Your task to perform on an android device: change the upload size in google photos Image 0: 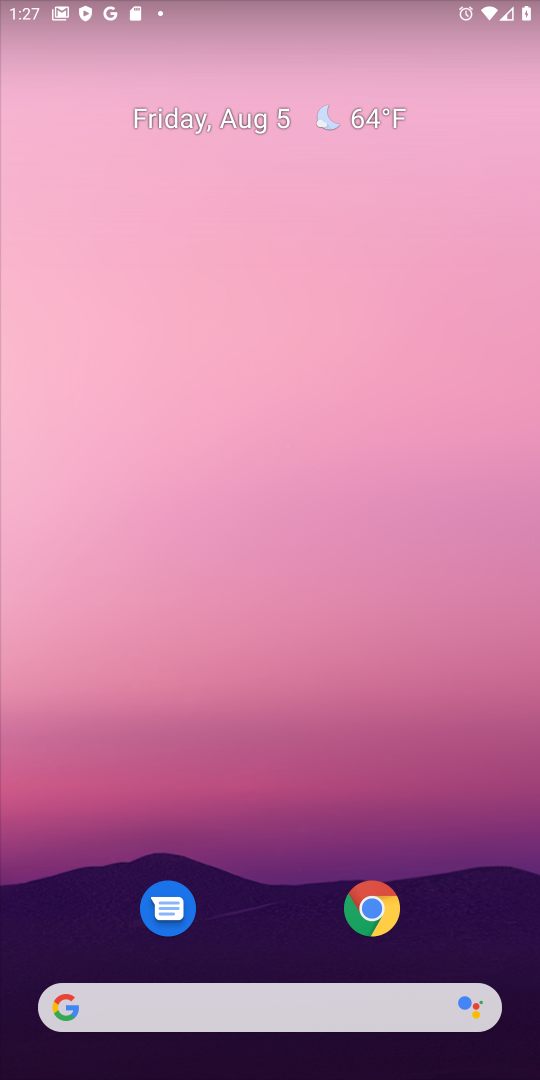
Step 0: press home button
Your task to perform on an android device: change the upload size in google photos Image 1: 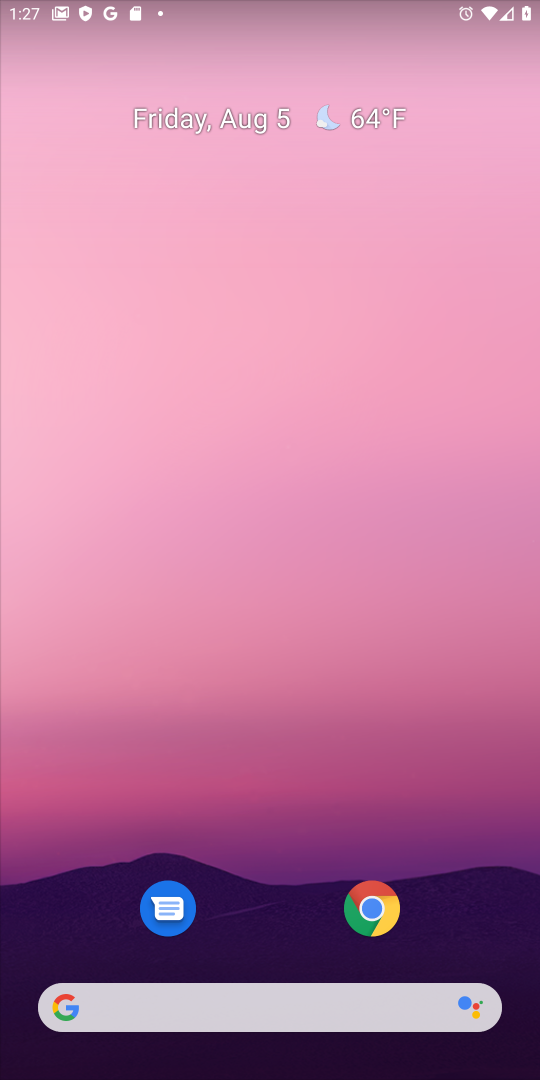
Step 1: drag from (247, 862) to (191, 120)
Your task to perform on an android device: change the upload size in google photos Image 2: 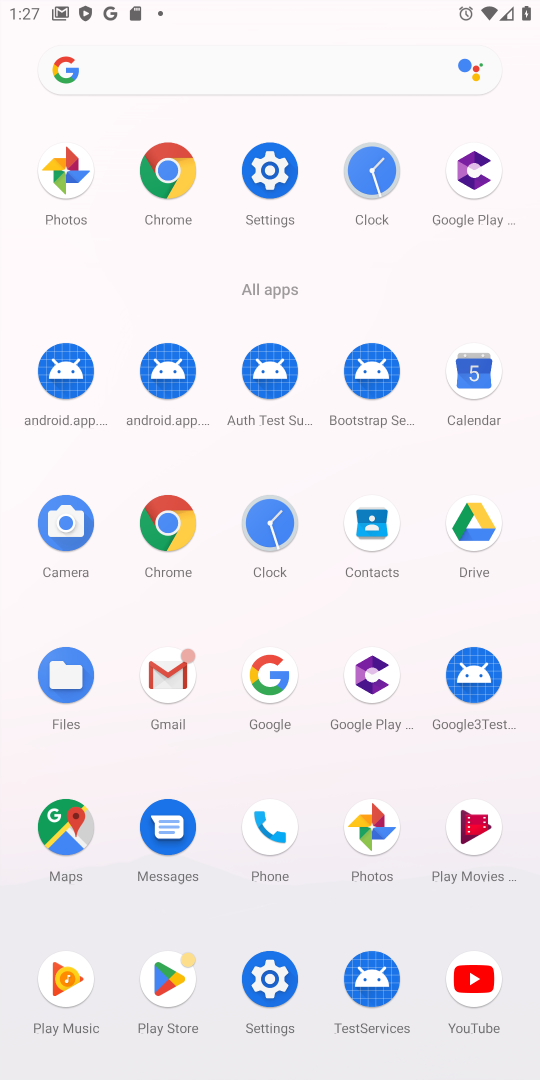
Step 2: click (382, 815)
Your task to perform on an android device: change the upload size in google photos Image 3: 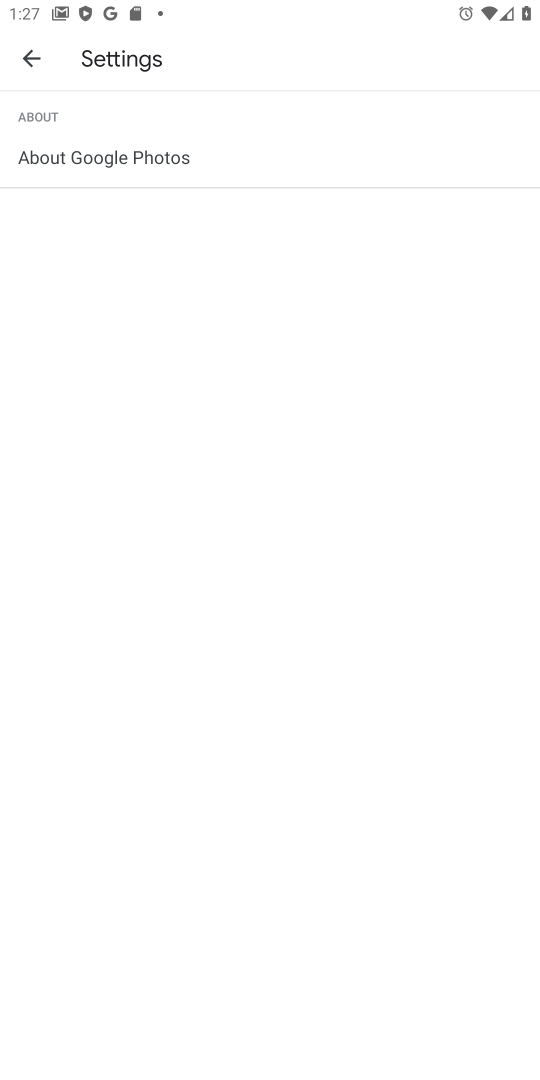
Step 3: click (36, 60)
Your task to perform on an android device: change the upload size in google photos Image 4: 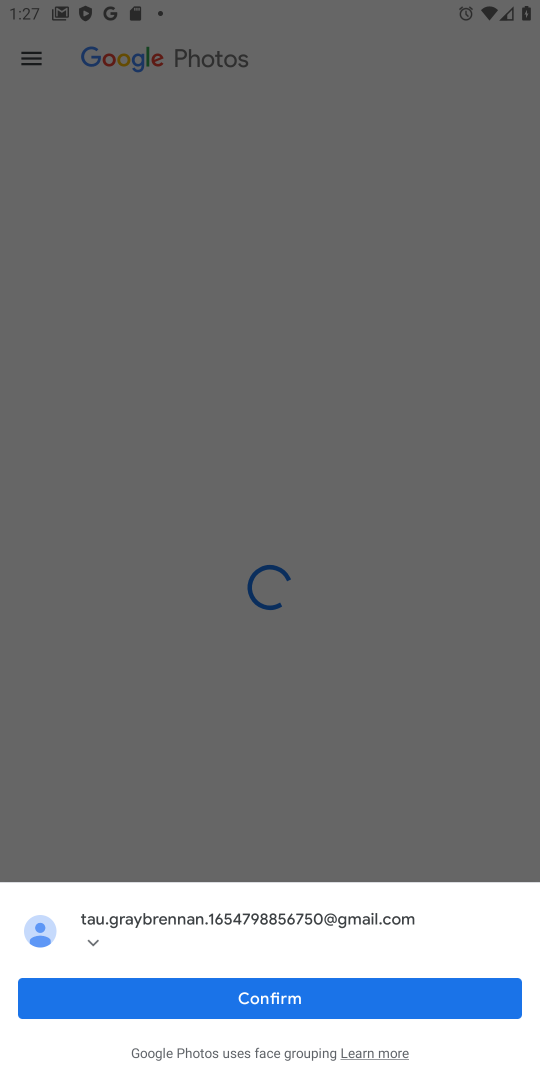
Step 4: click (36, 56)
Your task to perform on an android device: change the upload size in google photos Image 5: 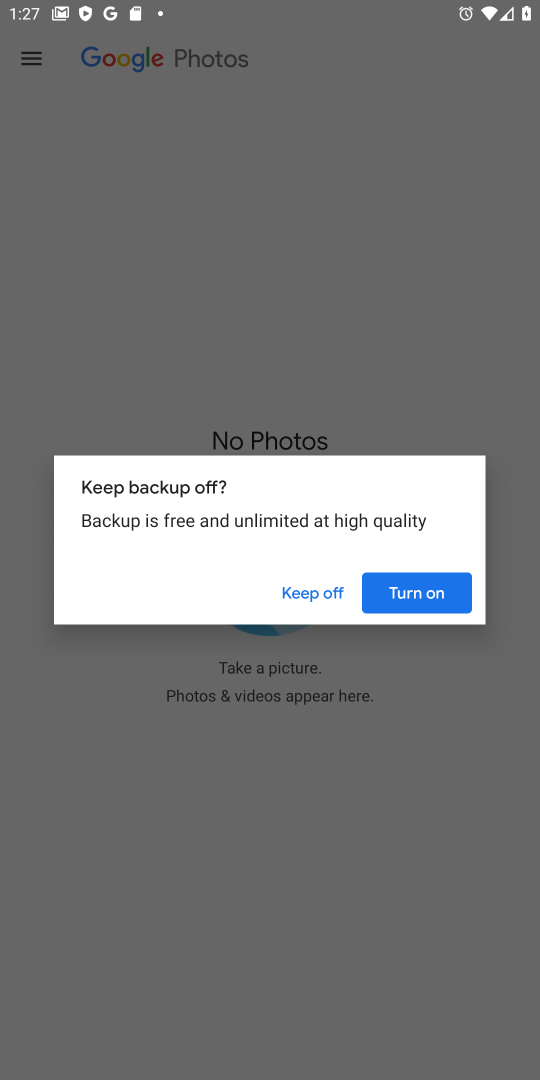
Step 5: click (313, 595)
Your task to perform on an android device: change the upload size in google photos Image 6: 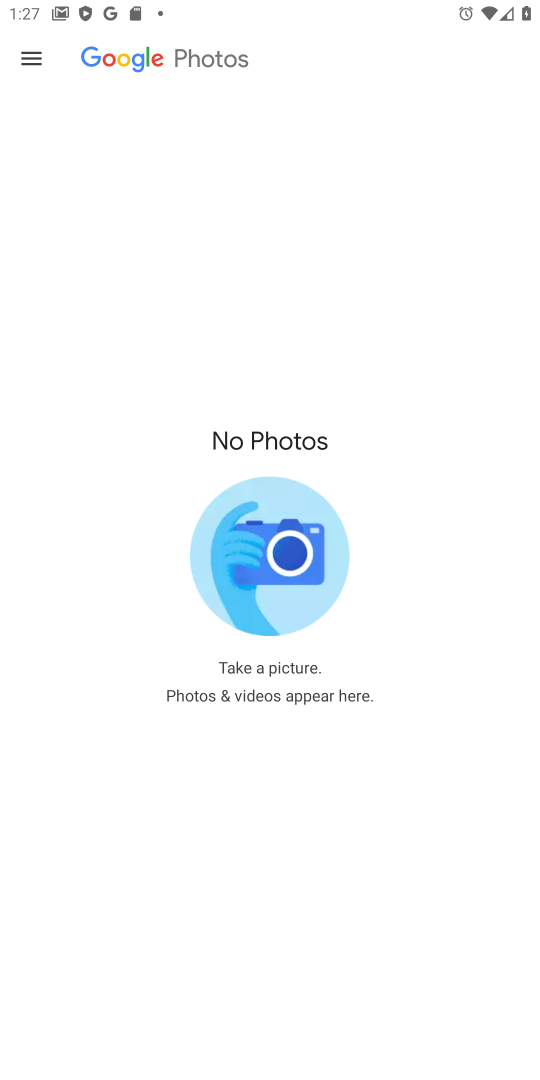
Step 6: click (27, 50)
Your task to perform on an android device: change the upload size in google photos Image 7: 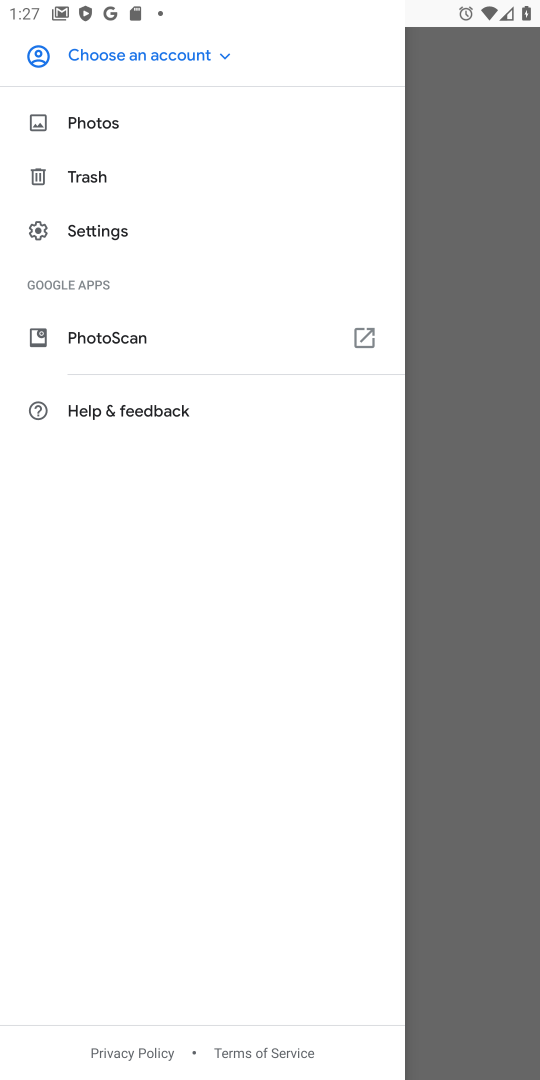
Step 7: click (101, 235)
Your task to perform on an android device: change the upload size in google photos Image 8: 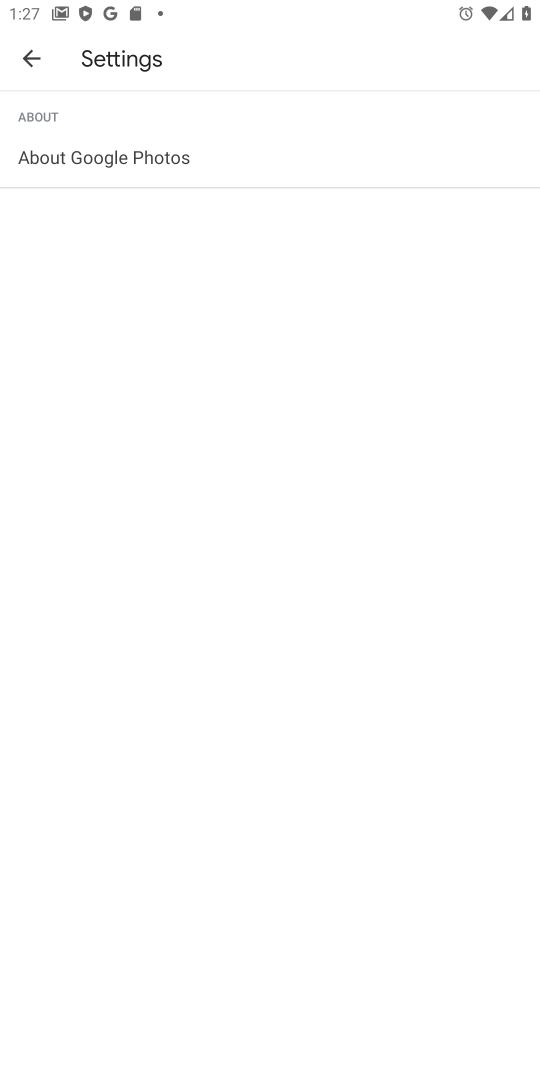
Step 8: click (71, 165)
Your task to perform on an android device: change the upload size in google photos Image 9: 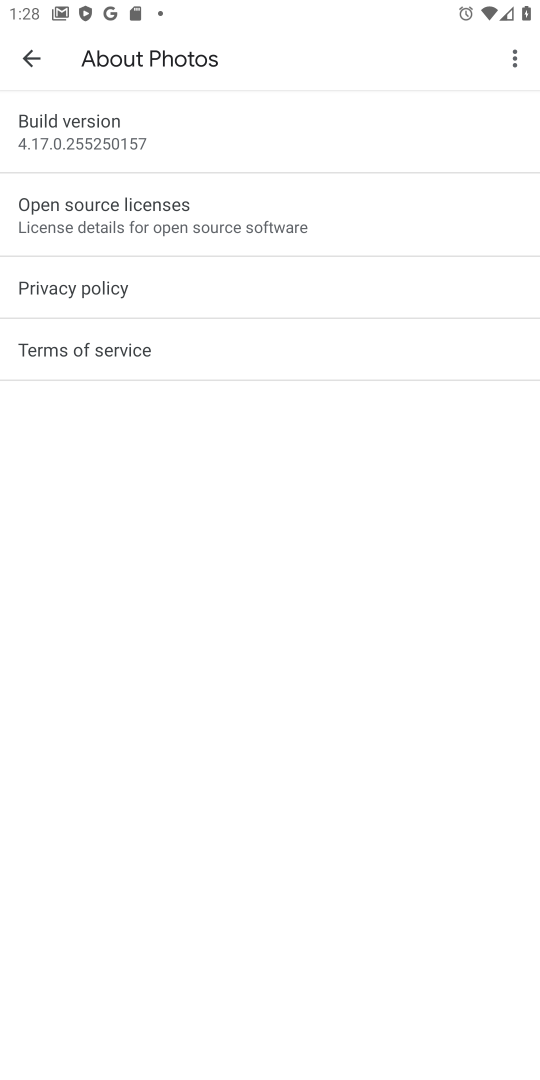
Step 9: click (36, 62)
Your task to perform on an android device: change the upload size in google photos Image 10: 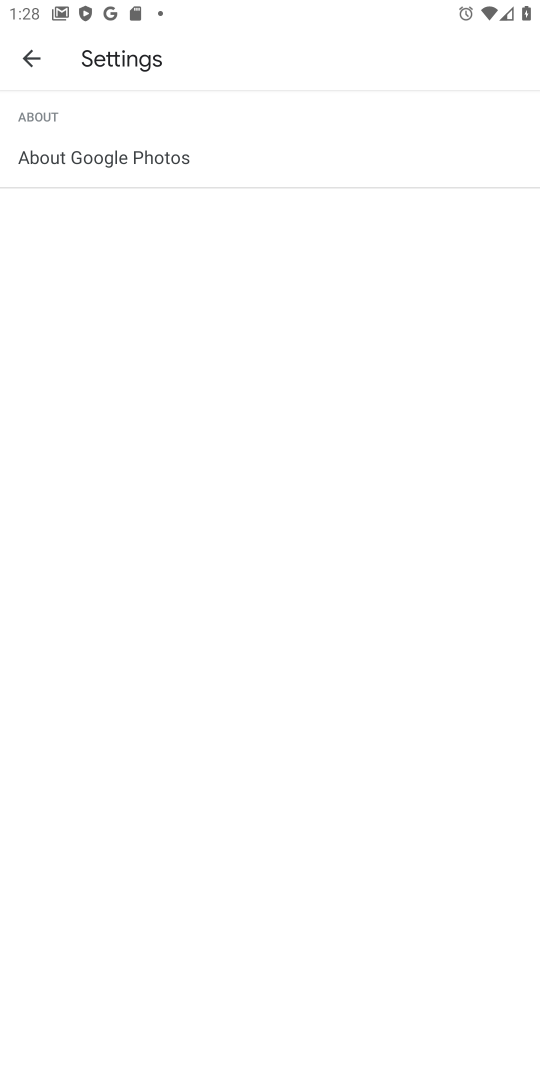
Step 10: click (36, 62)
Your task to perform on an android device: change the upload size in google photos Image 11: 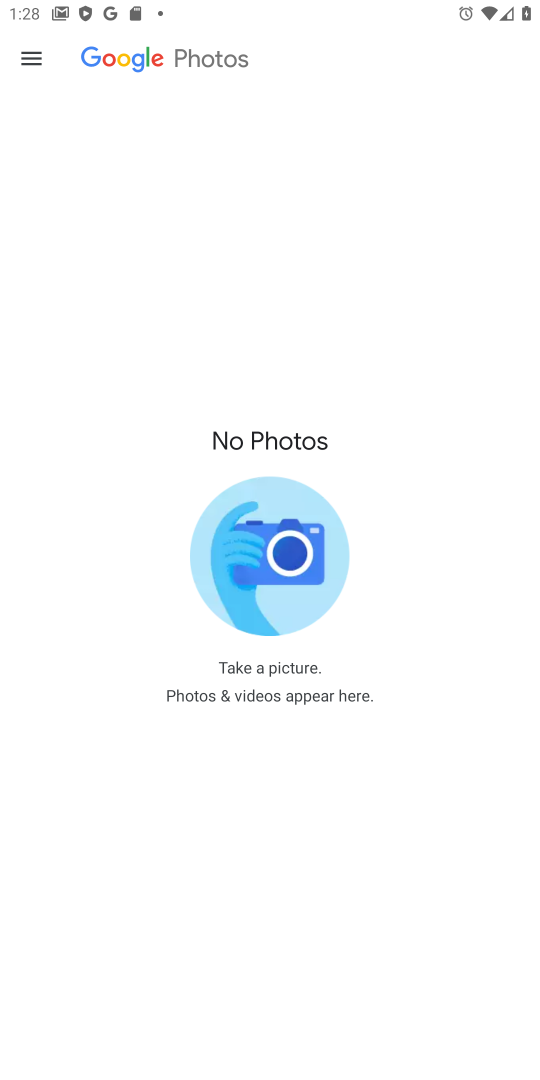
Step 11: click (36, 62)
Your task to perform on an android device: change the upload size in google photos Image 12: 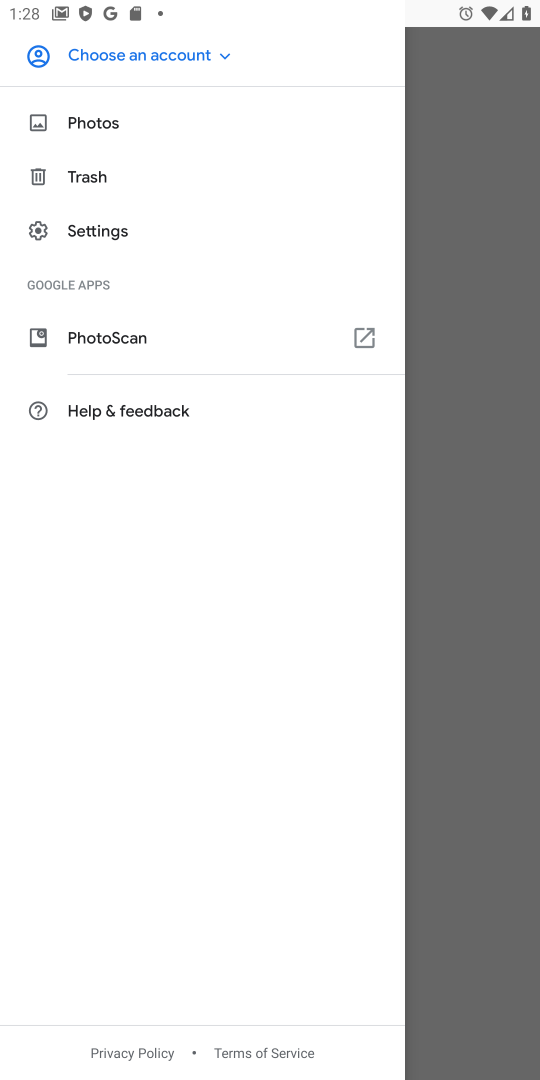
Step 12: click (40, 252)
Your task to perform on an android device: change the upload size in google photos Image 13: 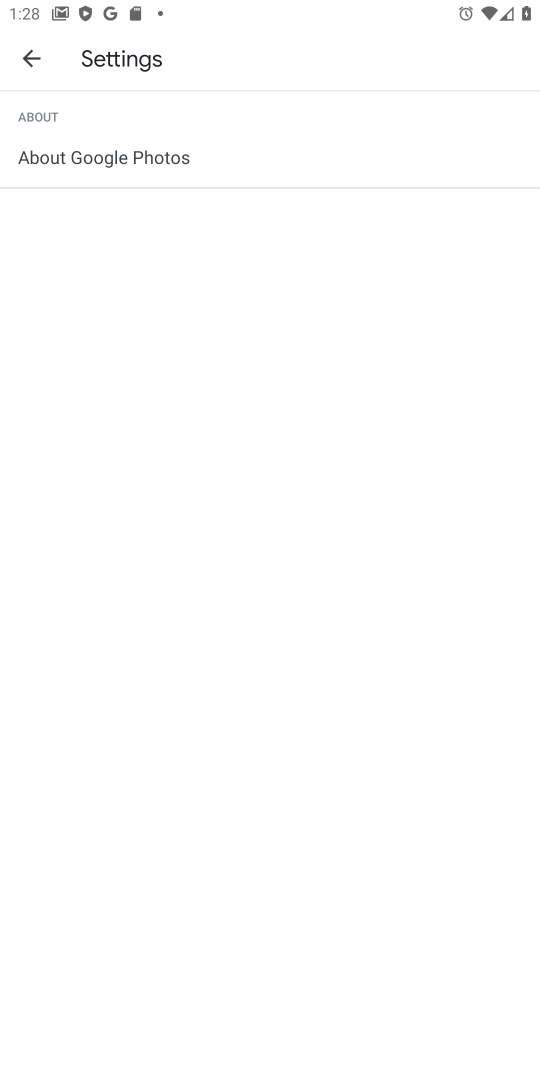
Step 13: click (21, 58)
Your task to perform on an android device: change the upload size in google photos Image 14: 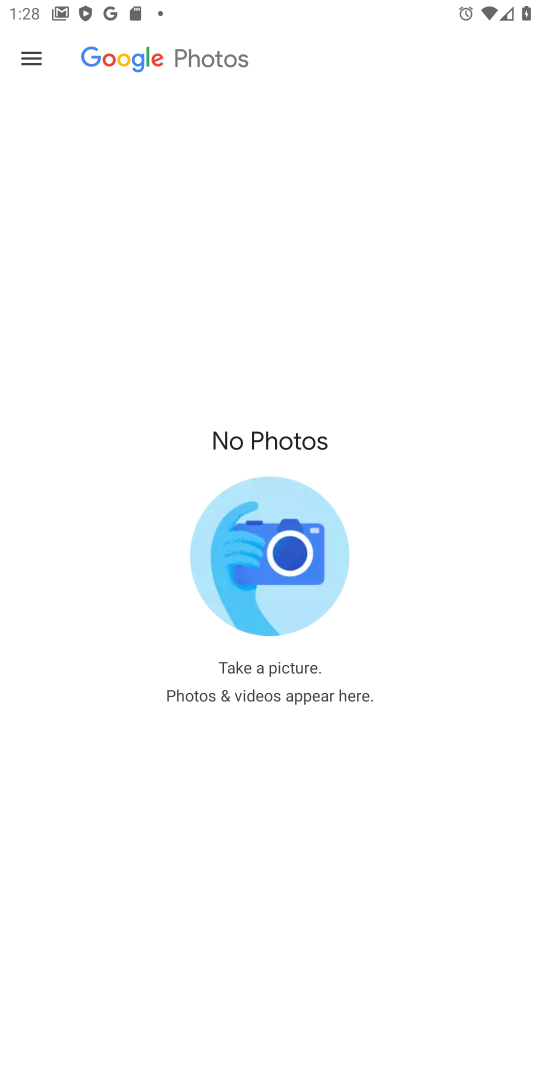
Step 14: click (21, 58)
Your task to perform on an android device: change the upload size in google photos Image 15: 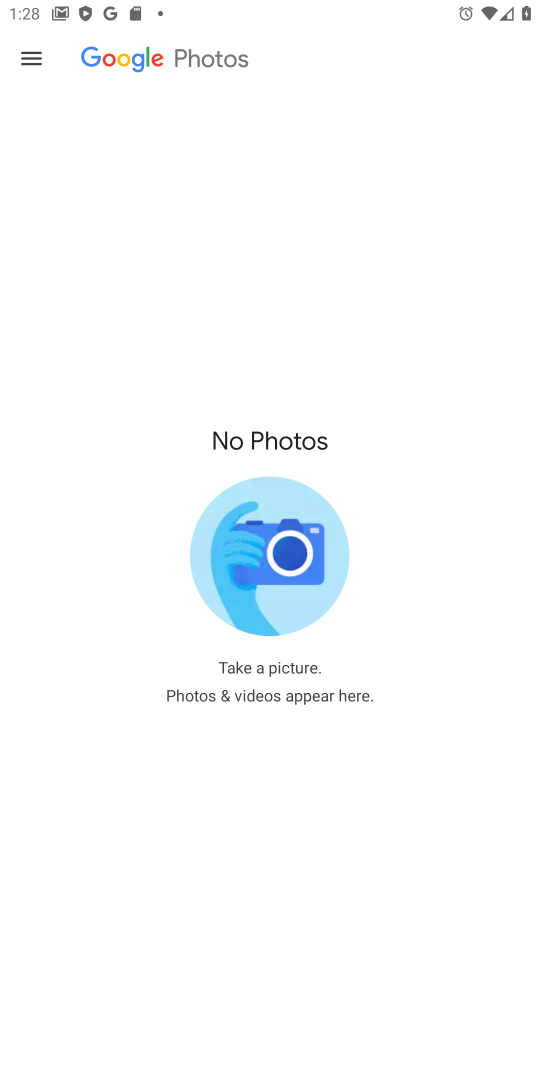
Step 15: click (41, 60)
Your task to perform on an android device: change the upload size in google photos Image 16: 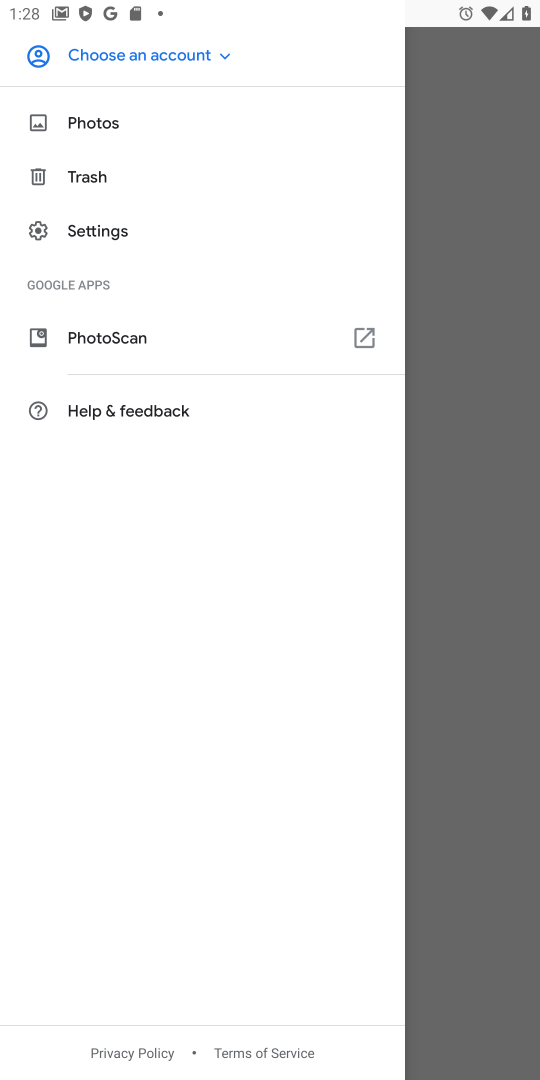
Step 16: click (98, 121)
Your task to perform on an android device: change the upload size in google photos Image 17: 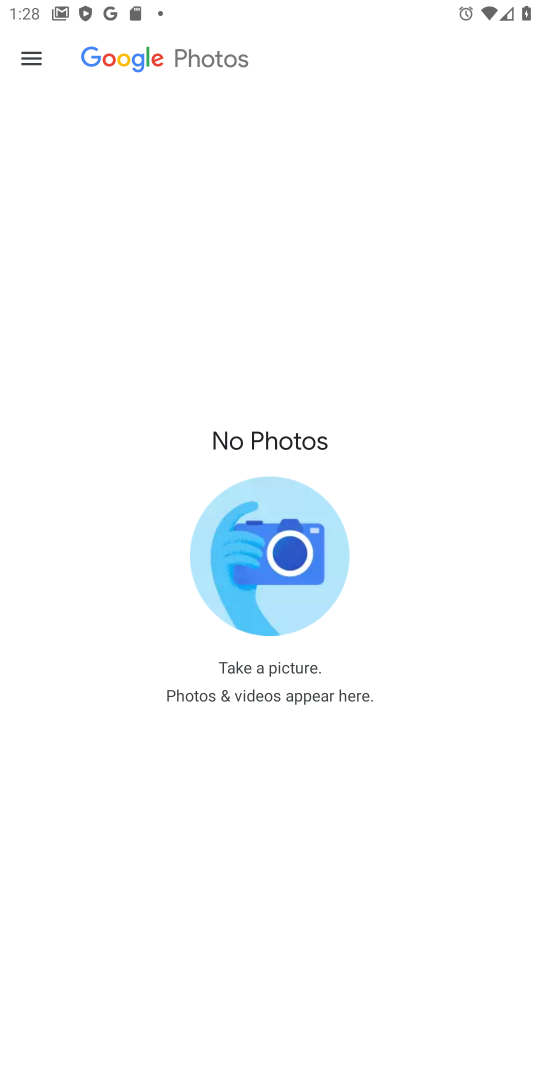
Step 17: click (34, 61)
Your task to perform on an android device: change the upload size in google photos Image 18: 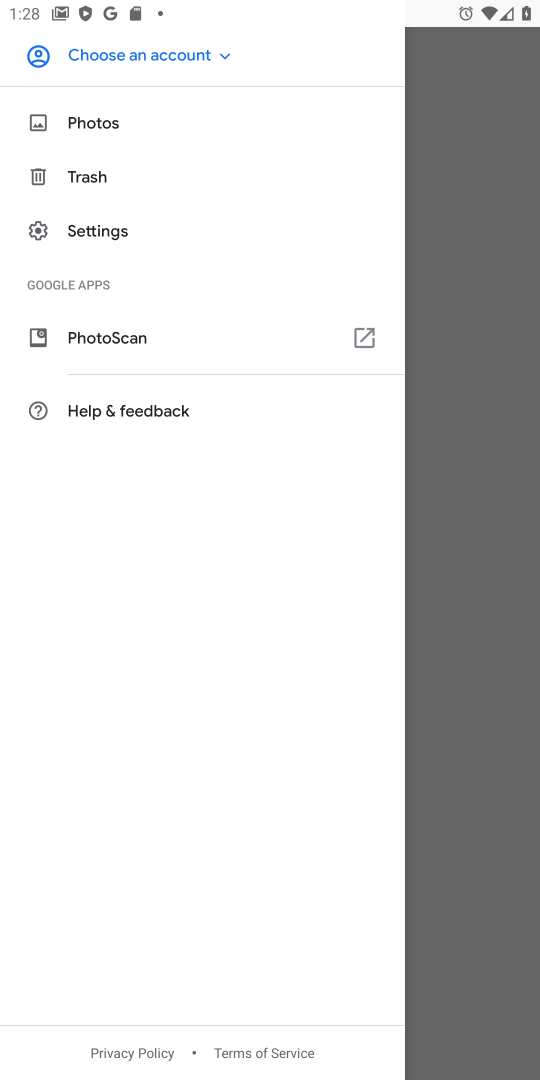
Step 18: task complete